Your task to perform on an android device: Open internet settings Image 0: 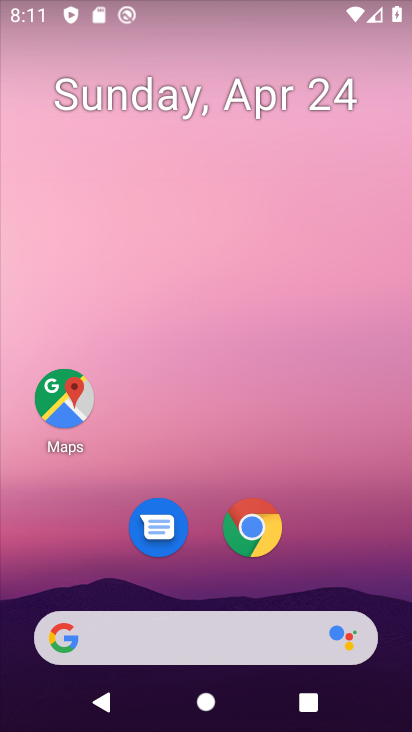
Step 0: drag from (292, 568) to (280, 176)
Your task to perform on an android device: Open internet settings Image 1: 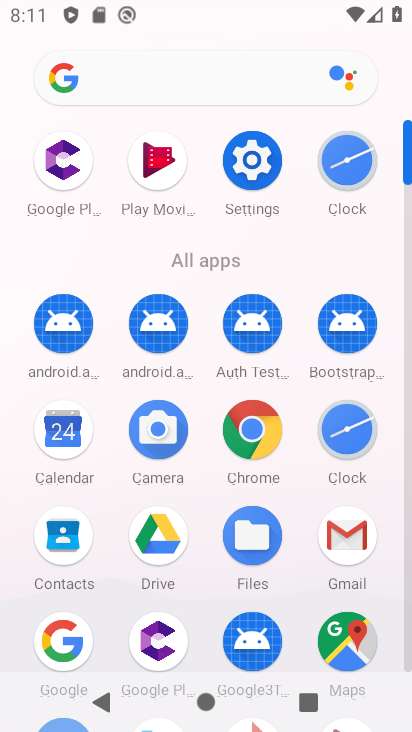
Step 1: click (251, 165)
Your task to perform on an android device: Open internet settings Image 2: 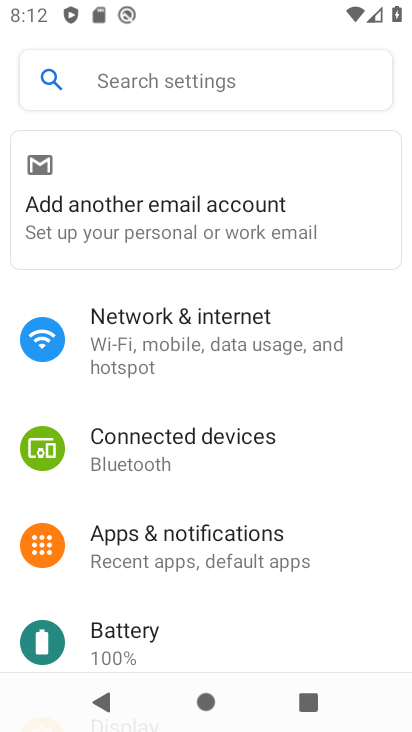
Step 2: click (251, 356)
Your task to perform on an android device: Open internet settings Image 3: 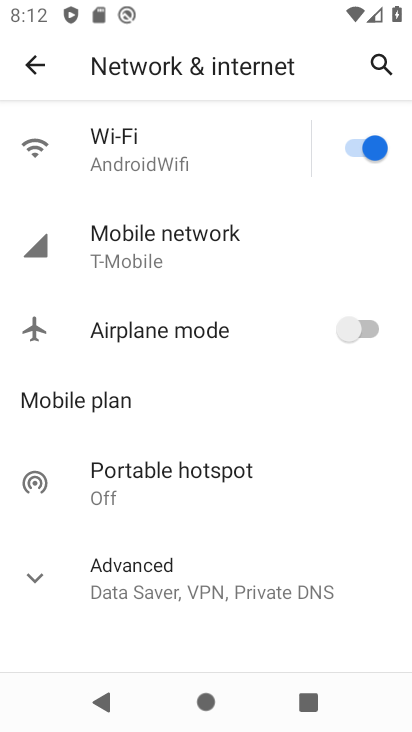
Step 3: task complete